Your task to perform on an android device: choose inbox layout in the gmail app Image 0: 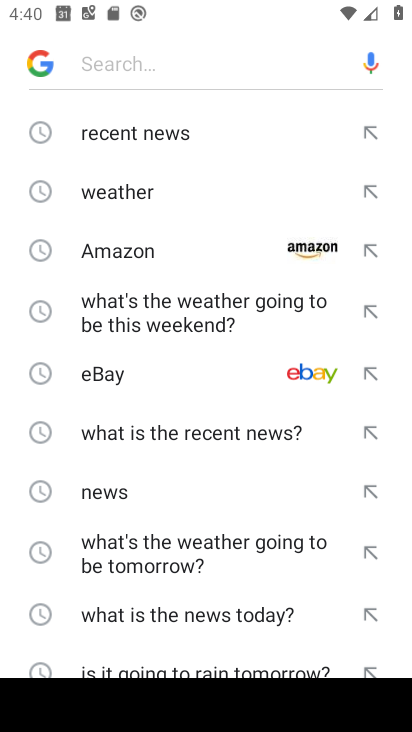
Step 0: press home button
Your task to perform on an android device: choose inbox layout in the gmail app Image 1: 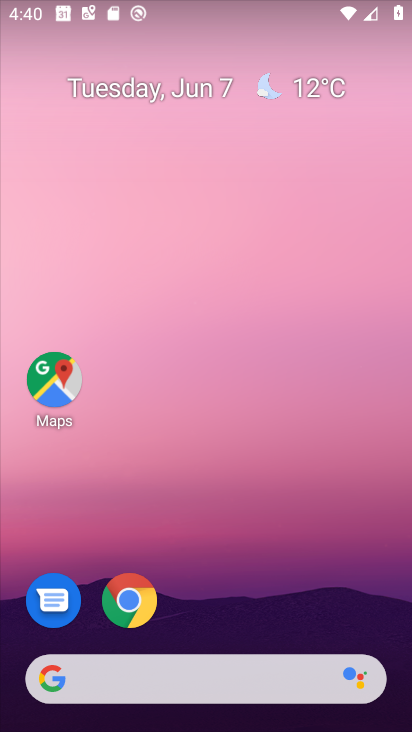
Step 1: drag from (281, 587) to (230, 142)
Your task to perform on an android device: choose inbox layout in the gmail app Image 2: 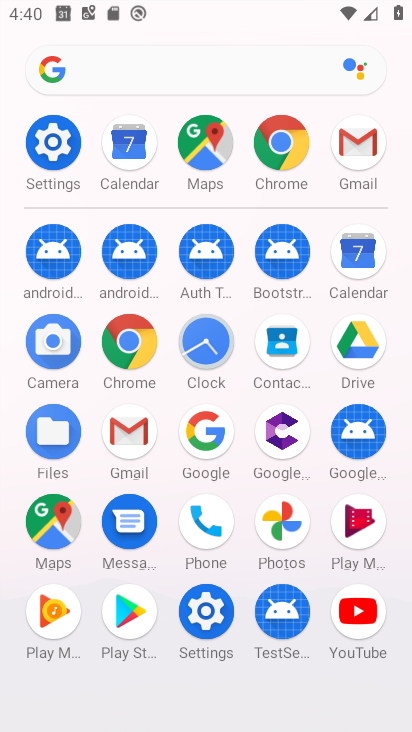
Step 2: click (375, 137)
Your task to perform on an android device: choose inbox layout in the gmail app Image 3: 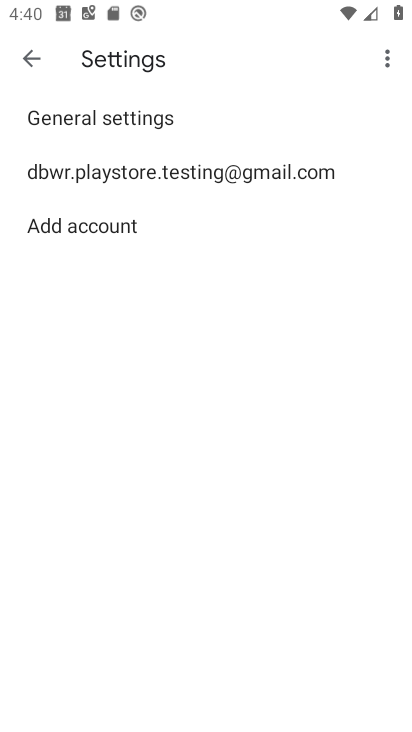
Step 3: click (185, 167)
Your task to perform on an android device: choose inbox layout in the gmail app Image 4: 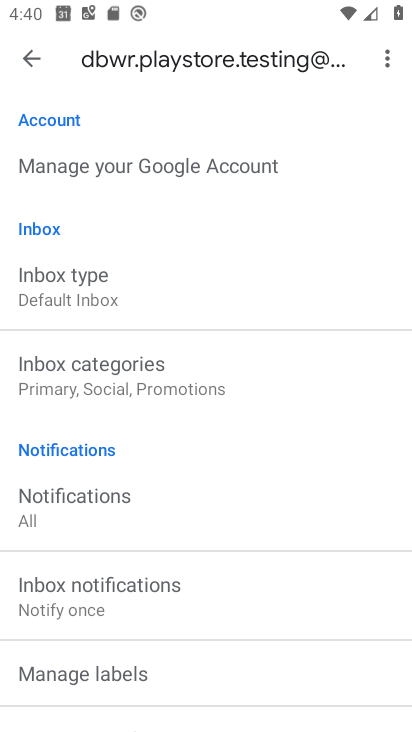
Step 4: click (103, 290)
Your task to perform on an android device: choose inbox layout in the gmail app Image 5: 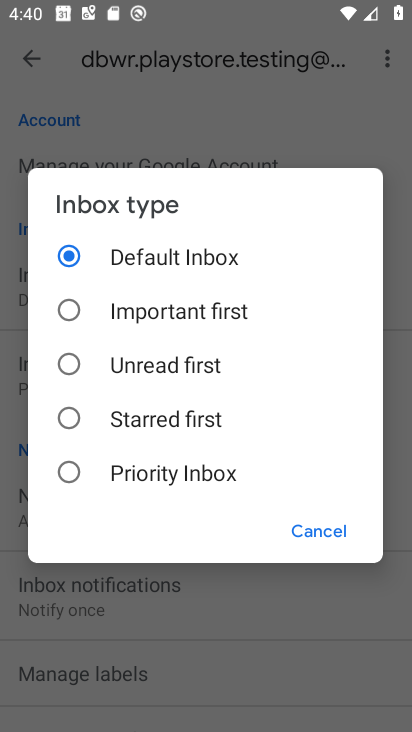
Step 5: task complete